Your task to perform on an android device: What is the news today? Image 0: 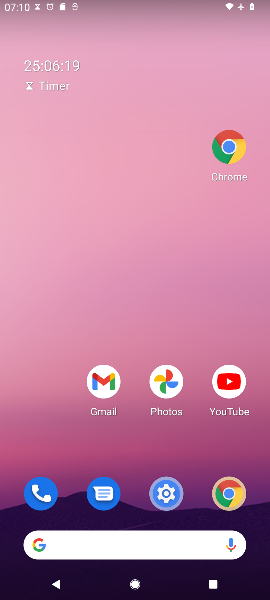
Step 0: click (37, 542)
Your task to perform on an android device: What is the news today? Image 1: 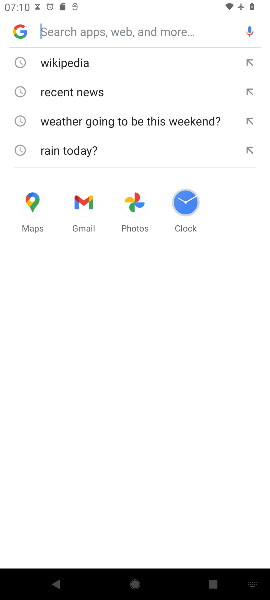
Step 1: type "What is the news today?"
Your task to perform on an android device: What is the news today? Image 2: 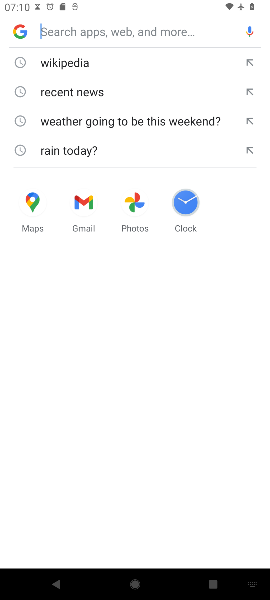
Step 2: click (105, 26)
Your task to perform on an android device: What is the news today? Image 3: 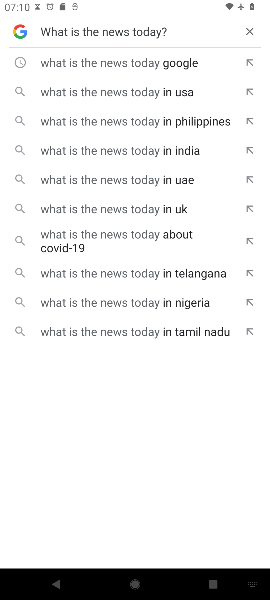
Step 3: press enter
Your task to perform on an android device: What is the news today? Image 4: 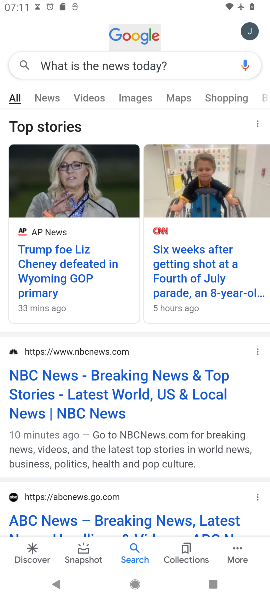
Step 4: task complete